Your task to perform on an android device: install app "Paramount+ | Peak Streaming" Image 0: 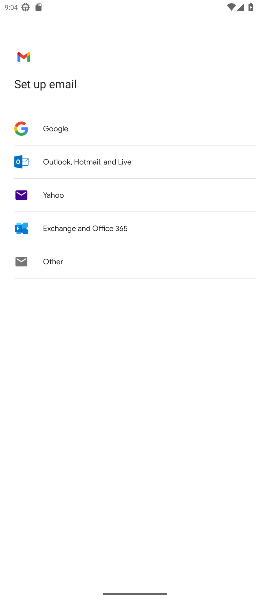
Step 0: press home button
Your task to perform on an android device: install app "Paramount+ | Peak Streaming" Image 1: 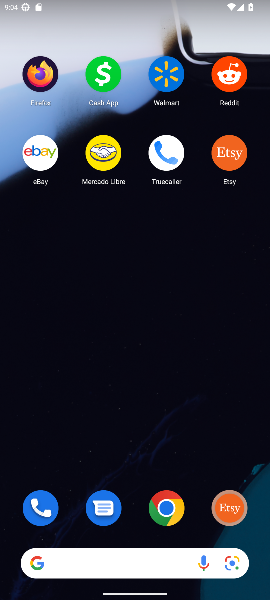
Step 1: drag from (148, 551) to (116, 51)
Your task to perform on an android device: install app "Paramount+ | Peak Streaming" Image 2: 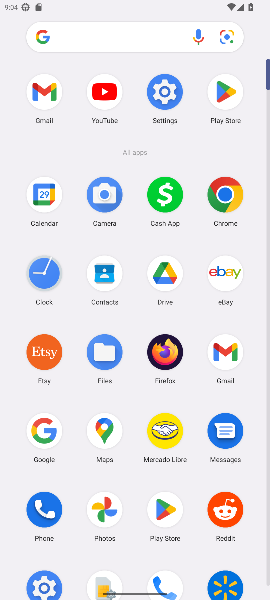
Step 2: click (220, 78)
Your task to perform on an android device: install app "Paramount+ | Peak Streaming" Image 3: 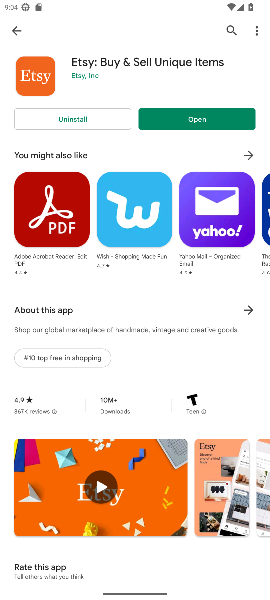
Step 3: click (224, 28)
Your task to perform on an android device: install app "Paramount+ | Peak Streaming" Image 4: 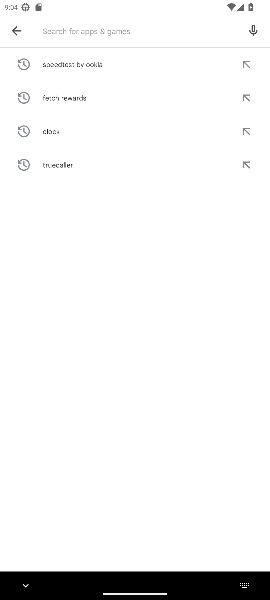
Step 4: type "paramount+ | peak streaming"
Your task to perform on an android device: install app "Paramount+ | Peak Streaming" Image 5: 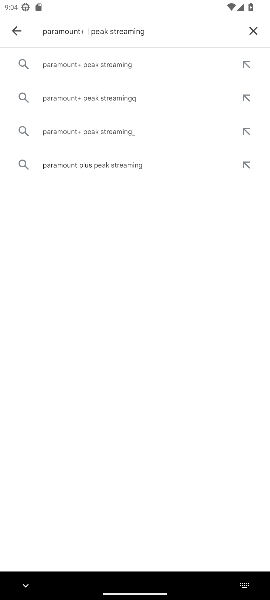
Step 5: click (130, 69)
Your task to perform on an android device: install app "Paramount+ | Peak Streaming" Image 6: 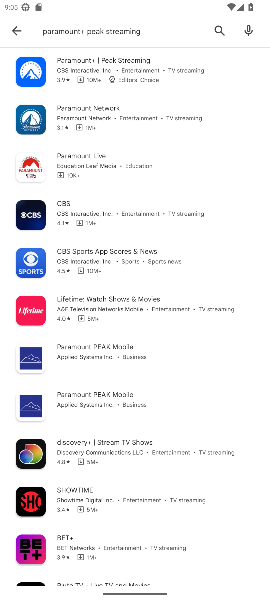
Step 6: click (130, 69)
Your task to perform on an android device: install app "Paramount+ | Peak Streaming" Image 7: 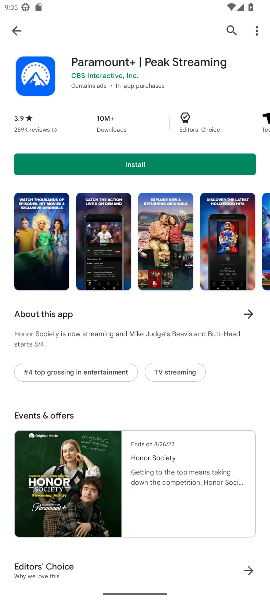
Step 7: click (104, 165)
Your task to perform on an android device: install app "Paramount+ | Peak Streaming" Image 8: 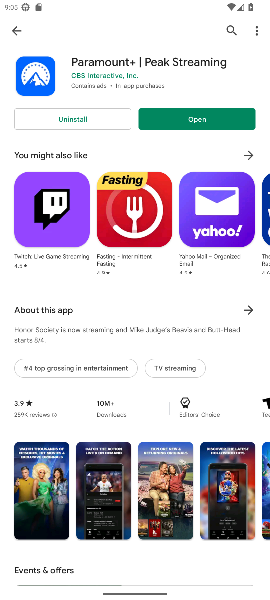
Step 8: task complete